Your task to perform on an android device: change timer sound Image 0: 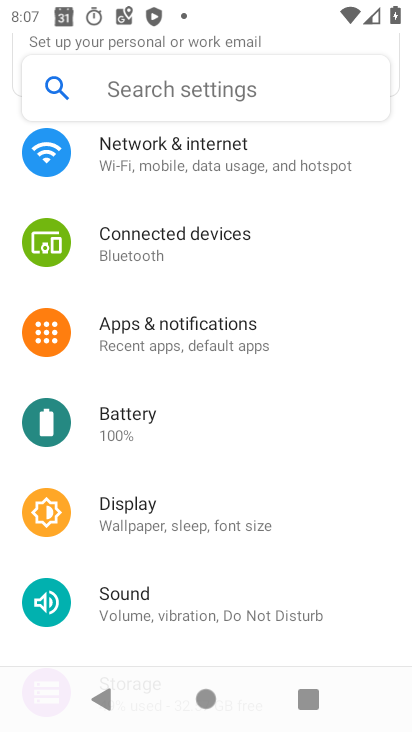
Step 0: press home button
Your task to perform on an android device: change timer sound Image 1: 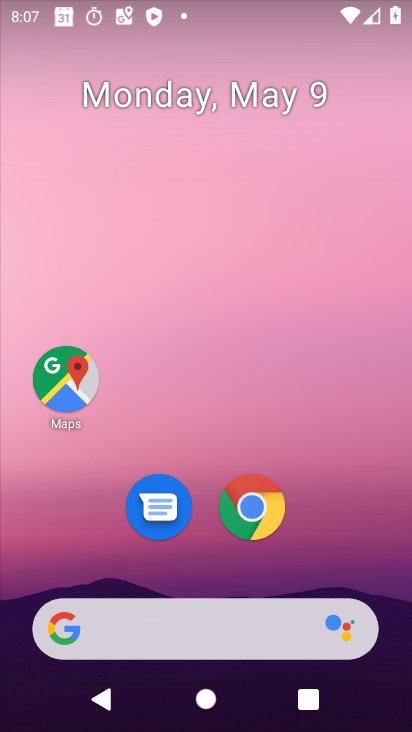
Step 1: drag from (261, 633) to (275, 142)
Your task to perform on an android device: change timer sound Image 2: 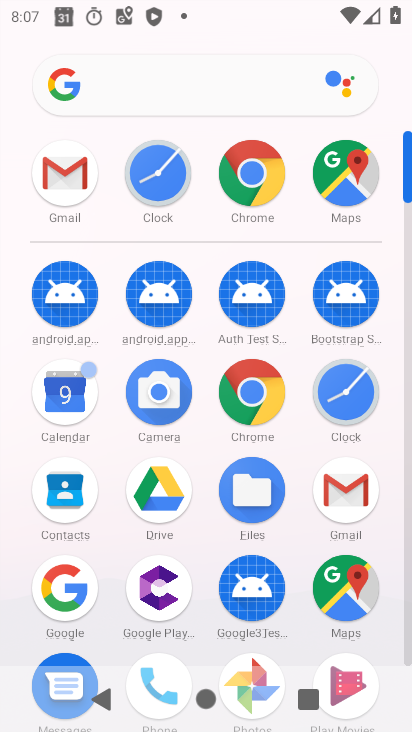
Step 2: click (149, 179)
Your task to perform on an android device: change timer sound Image 3: 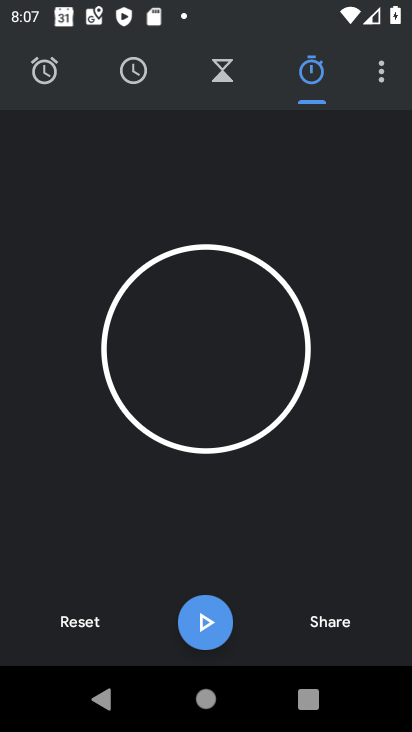
Step 3: click (373, 76)
Your task to perform on an android device: change timer sound Image 4: 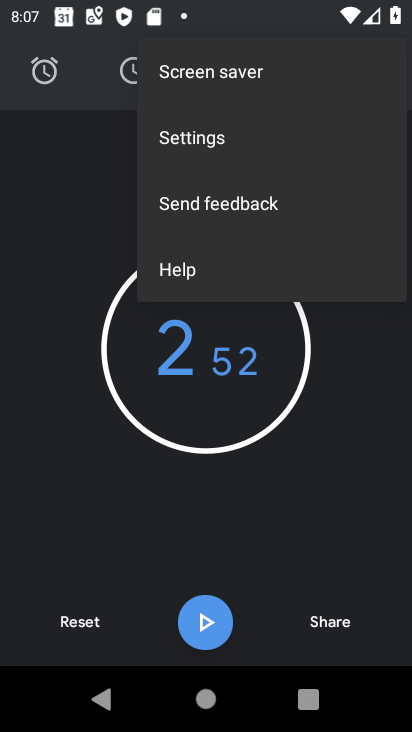
Step 4: click (201, 149)
Your task to perform on an android device: change timer sound Image 5: 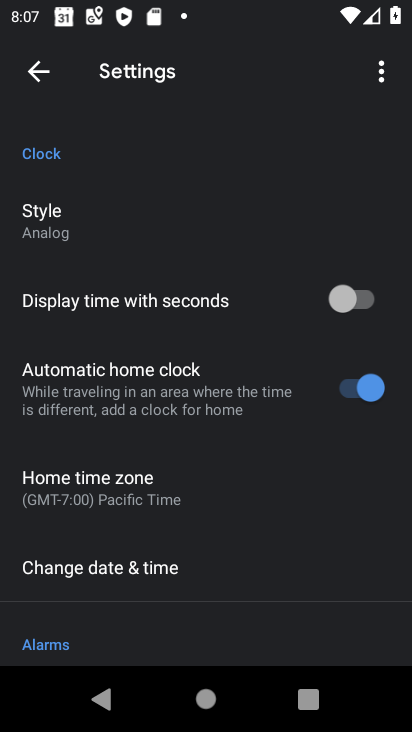
Step 5: drag from (235, 519) to (246, 264)
Your task to perform on an android device: change timer sound Image 6: 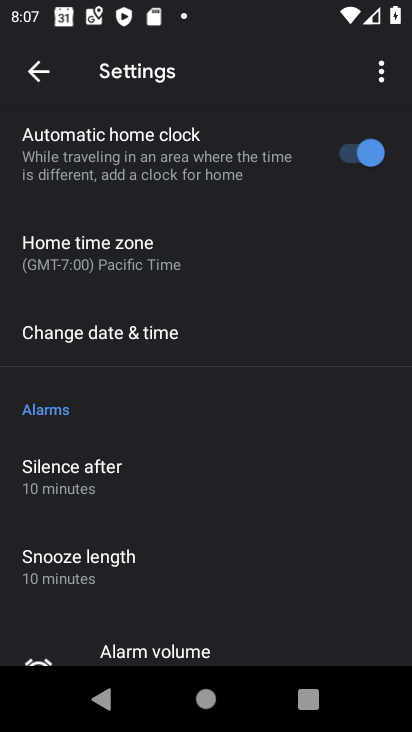
Step 6: drag from (237, 531) to (226, 235)
Your task to perform on an android device: change timer sound Image 7: 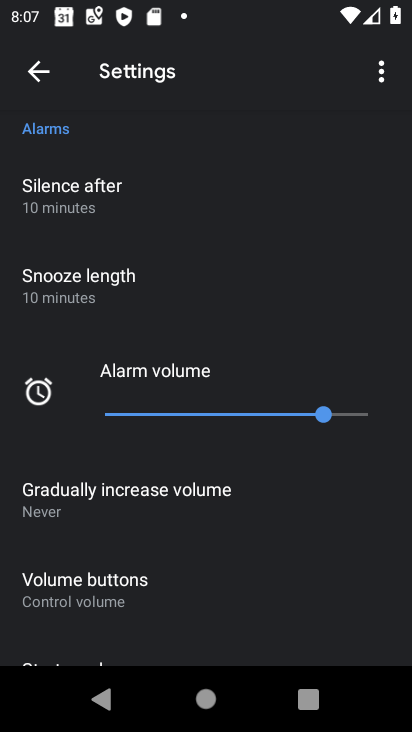
Step 7: drag from (229, 516) to (246, 435)
Your task to perform on an android device: change timer sound Image 8: 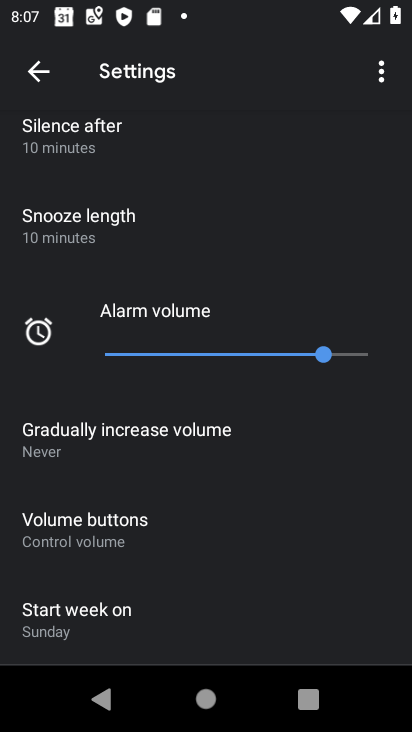
Step 8: drag from (255, 508) to (292, 396)
Your task to perform on an android device: change timer sound Image 9: 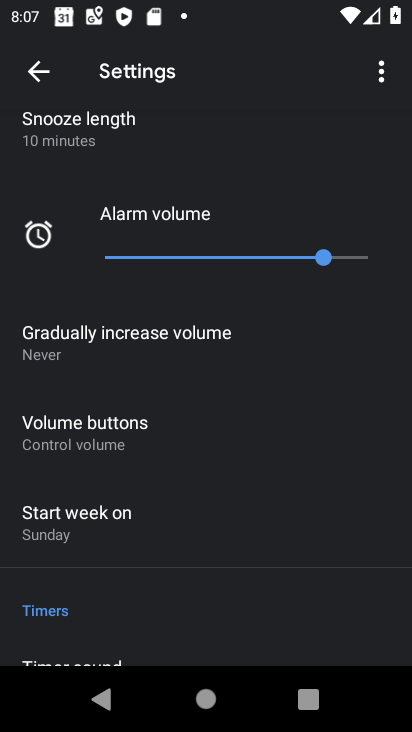
Step 9: drag from (232, 485) to (270, 362)
Your task to perform on an android device: change timer sound Image 10: 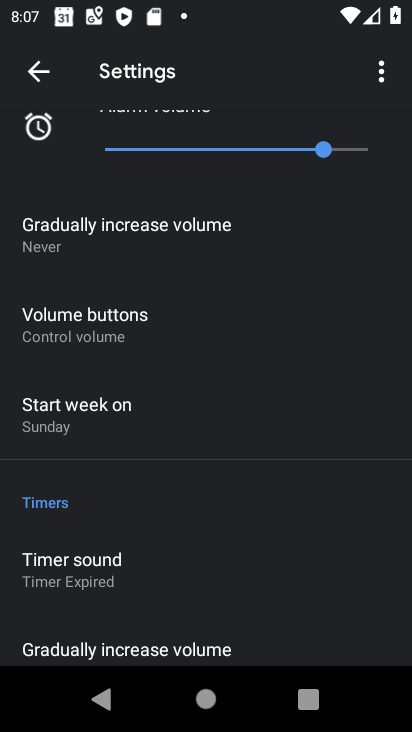
Step 10: click (152, 562)
Your task to perform on an android device: change timer sound Image 11: 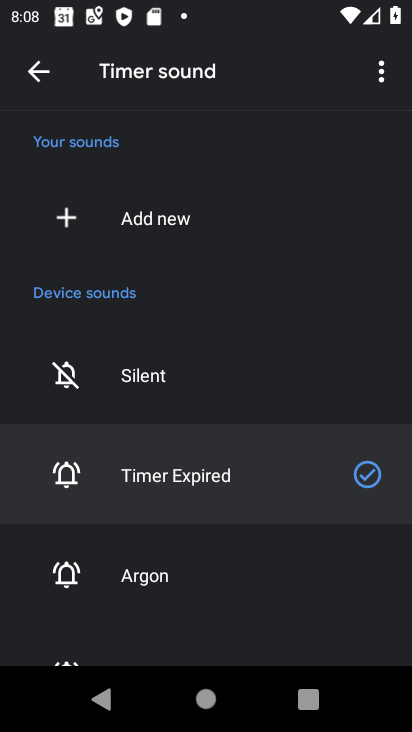
Step 11: click (139, 589)
Your task to perform on an android device: change timer sound Image 12: 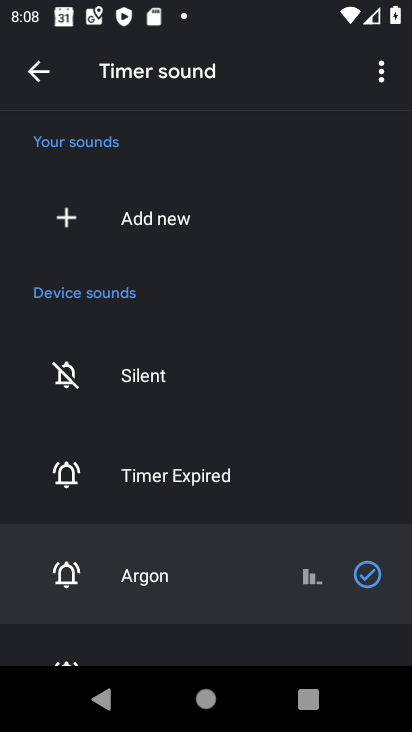
Step 12: task complete